Your task to perform on an android device: delete a single message in the gmail app Image 0: 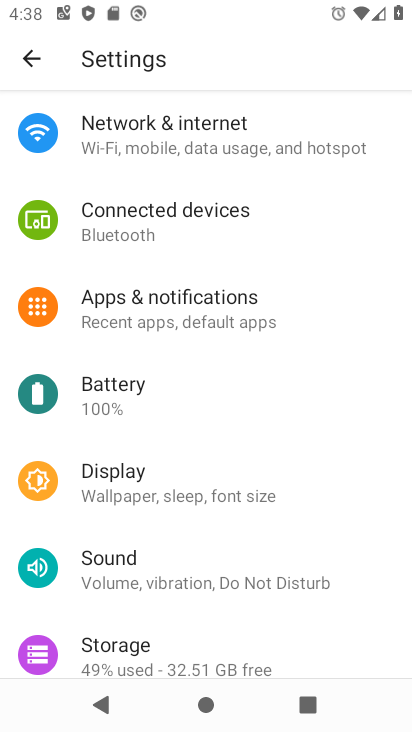
Step 0: press home button
Your task to perform on an android device: delete a single message in the gmail app Image 1: 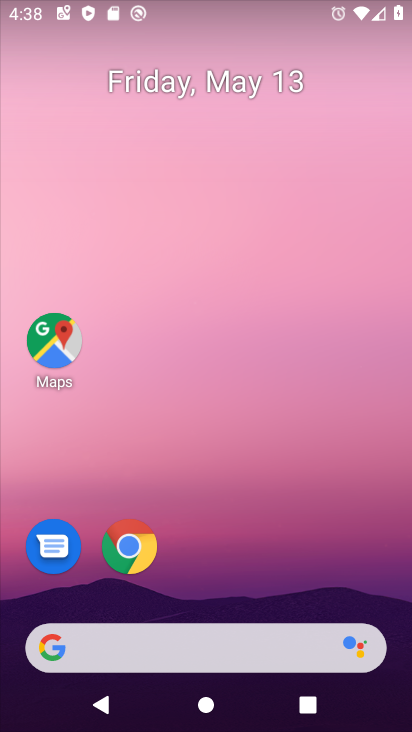
Step 1: drag from (229, 507) to (267, 6)
Your task to perform on an android device: delete a single message in the gmail app Image 2: 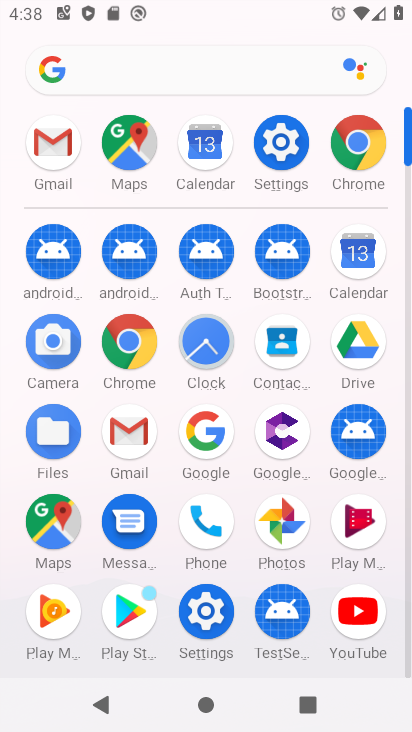
Step 2: click (129, 441)
Your task to perform on an android device: delete a single message in the gmail app Image 3: 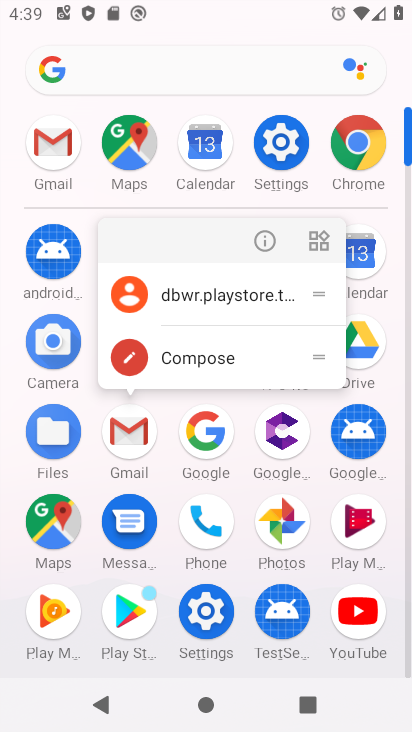
Step 3: click (131, 436)
Your task to perform on an android device: delete a single message in the gmail app Image 4: 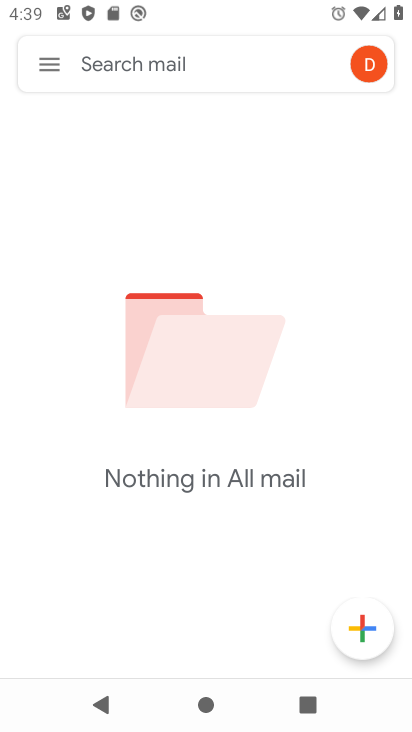
Step 4: task complete